Your task to perform on an android device: Open my contact list Image 0: 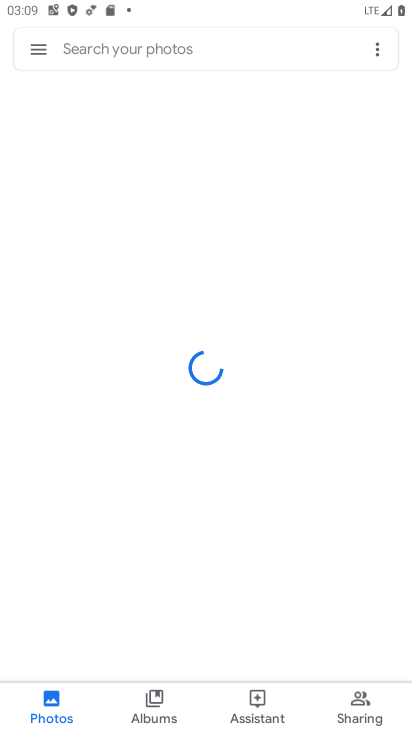
Step 0: drag from (224, 583) to (128, 223)
Your task to perform on an android device: Open my contact list Image 1: 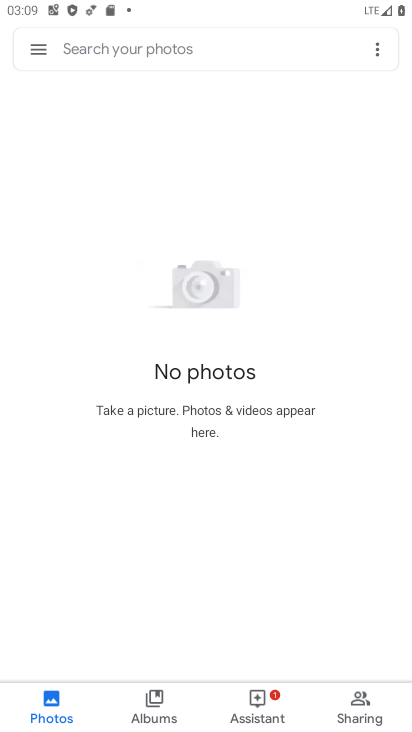
Step 1: drag from (222, 511) to (128, 160)
Your task to perform on an android device: Open my contact list Image 2: 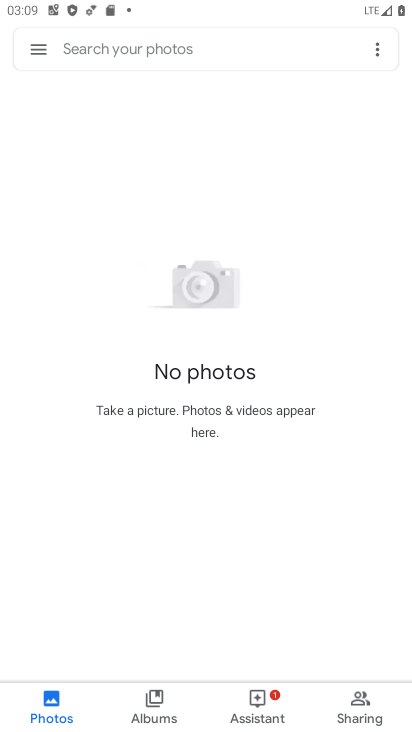
Step 2: press back button
Your task to perform on an android device: Open my contact list Image 3: 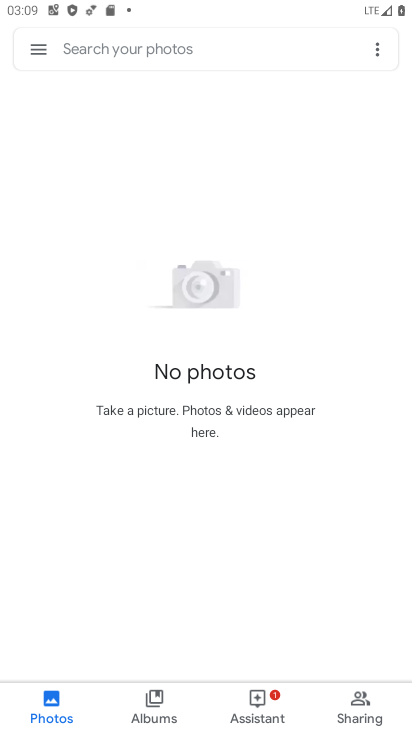
Step 3: press back button
Your task to perform on an android device: Open my contact list Image 4: 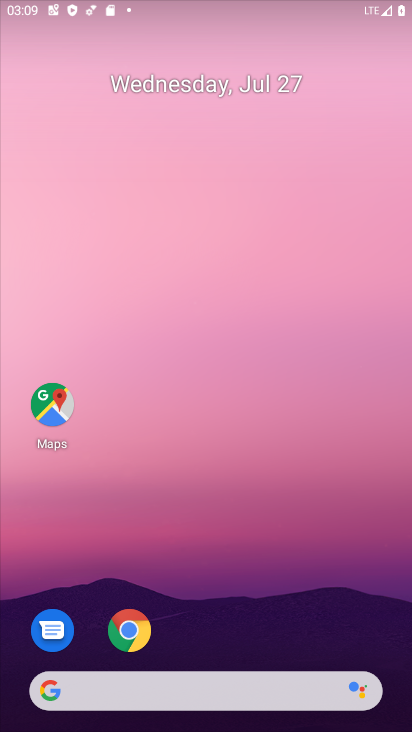
Step 4: drag from (281, 642) to (194, 247)
Your task to perform on an android device: Open my contact list Image 5: 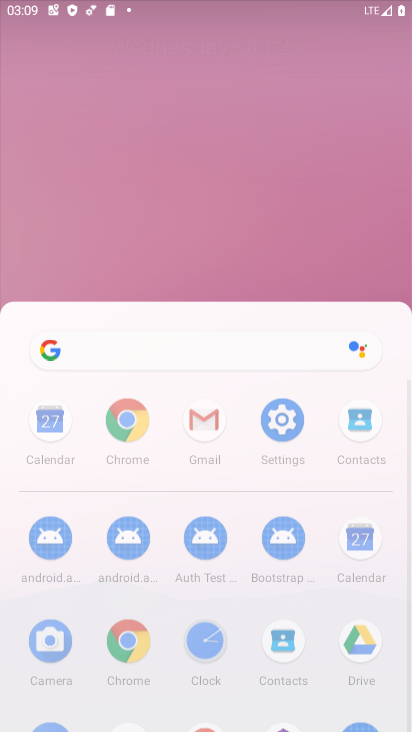
Step 5: drag from (258, 445) to (217, 224)
Your task to perform on an android device: Open my contact list Image 6: 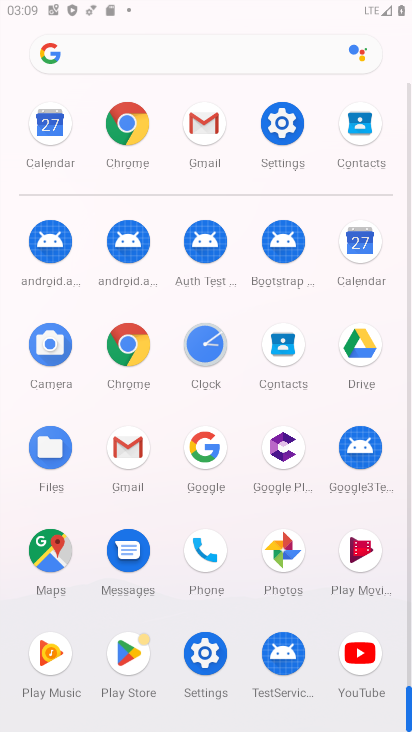
Step 6: drag from (252, 482) to (170, 206)
Your task to perform on an android device: Open my contact list Image 7: 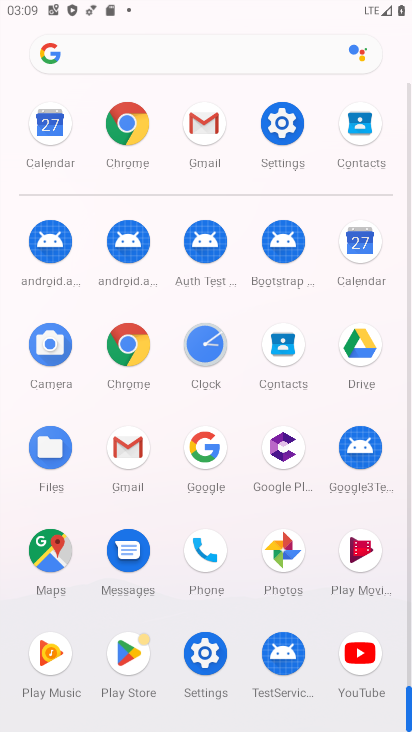
Step 7: click (272, 350)
Your task to perform on an android device: Open my contact list Image 8: 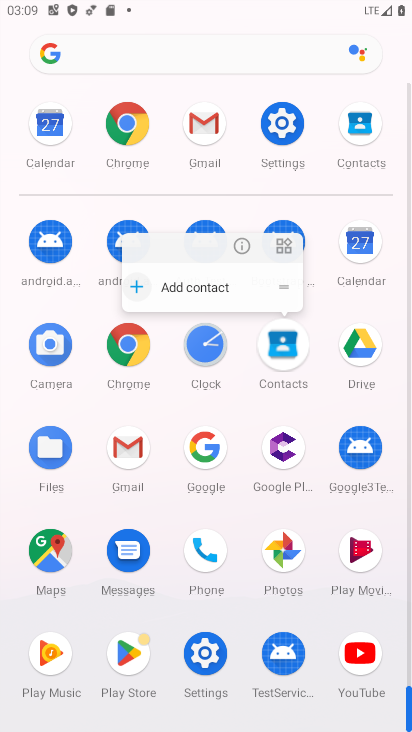
Step 8: click (272, 351)
Your task to perform on an android device: Open my contact list Image 9: 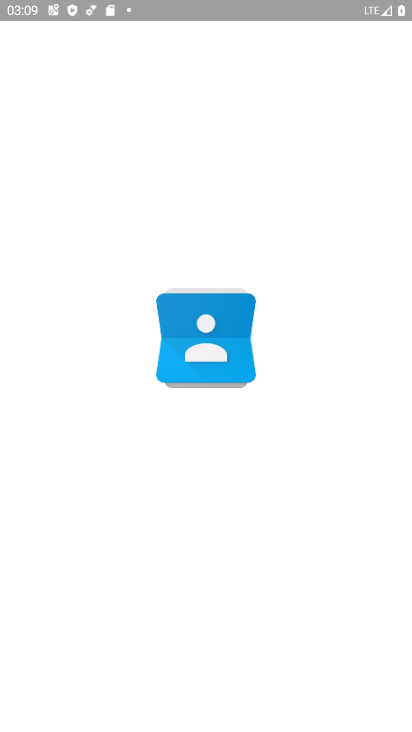
Step 9: click (273, 344)
Your task to perform on an android device: Open my contact list Image 10: 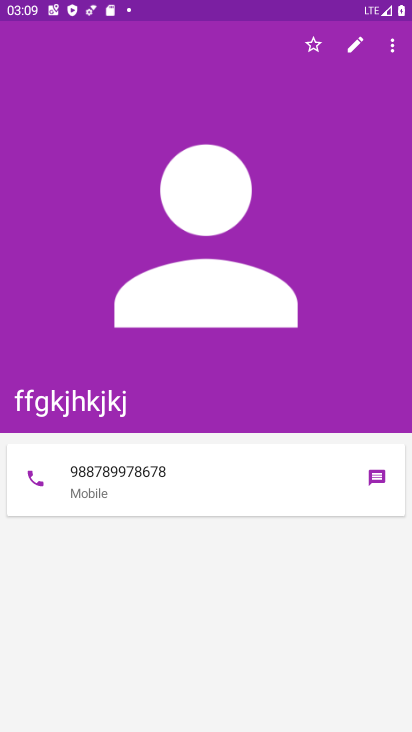
Step 10: task complete